Your task to perform on an android device: Search for Italian restaurants on Maps Image 0: 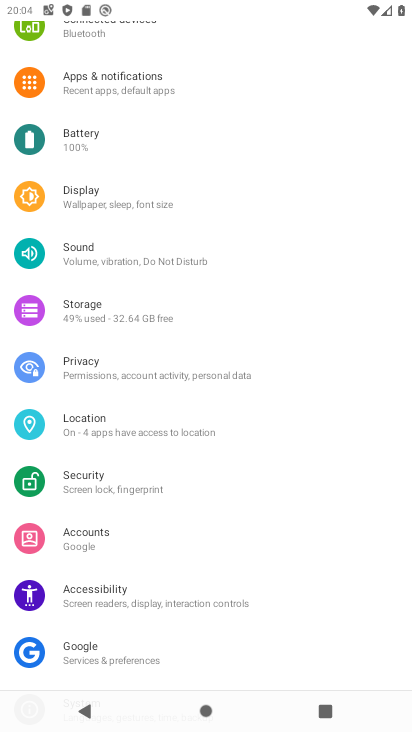
Step 0: press back button
Your task to perform on an android device: Search for Italian restaurants on Maps Image 1: 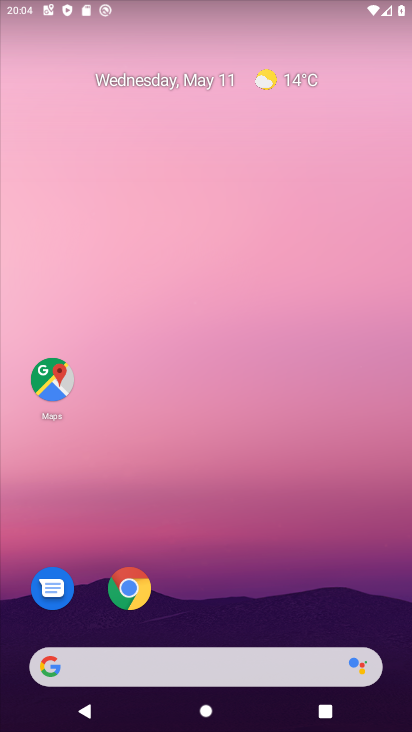
Step 1: click (56, 382)
Your task to perform on an android device: Search for Italian restaurants on Maps Image 2: 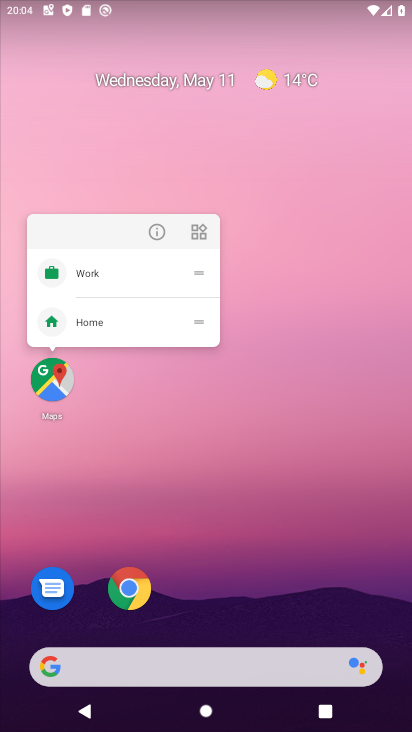
Step 2: click (56, 381)
Your task to perform on an android device: Search for Italian restaurants on Maps Image 3: 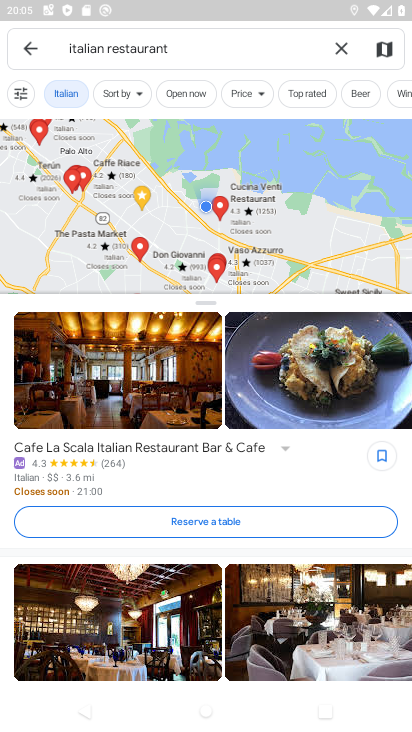
Step 3: task complete